Your task to perform on an android device: check android version Image 0: 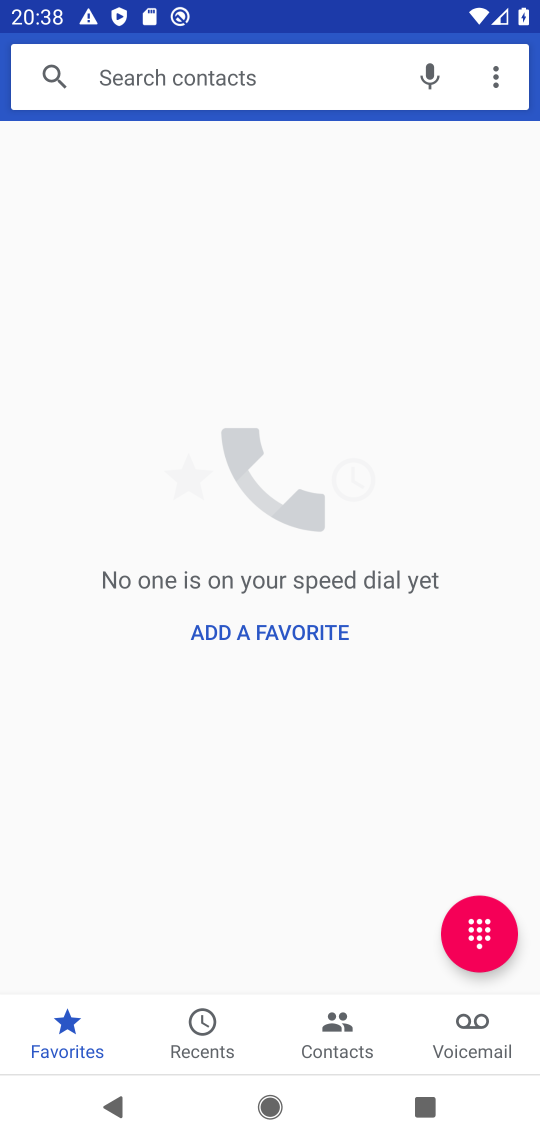
Step 0: press home button
Your task to perform on an android device: check android version Image 1: 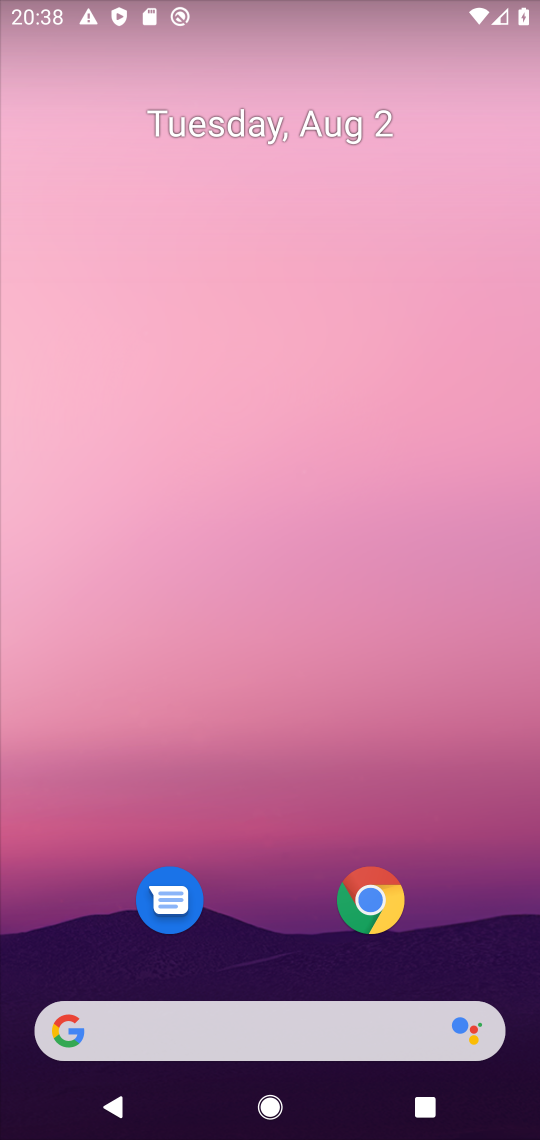
Step 1: drag from (266, 848) to (219, 0)
Your task to perform on an android device: check android version Image 2: 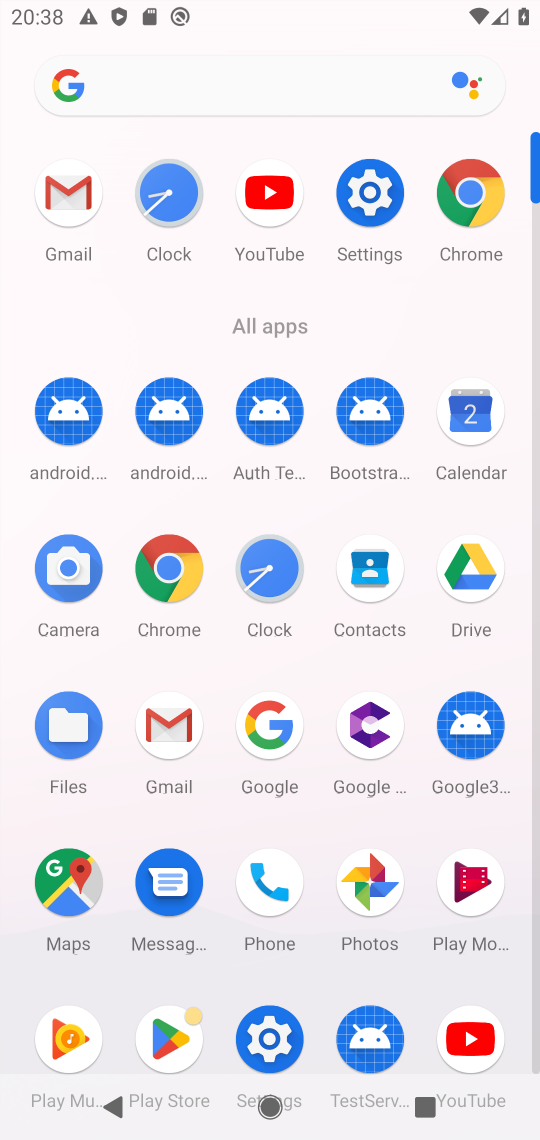
Step 2: click (367, 195)
Your task to perform on an android device: check android version Image 3: 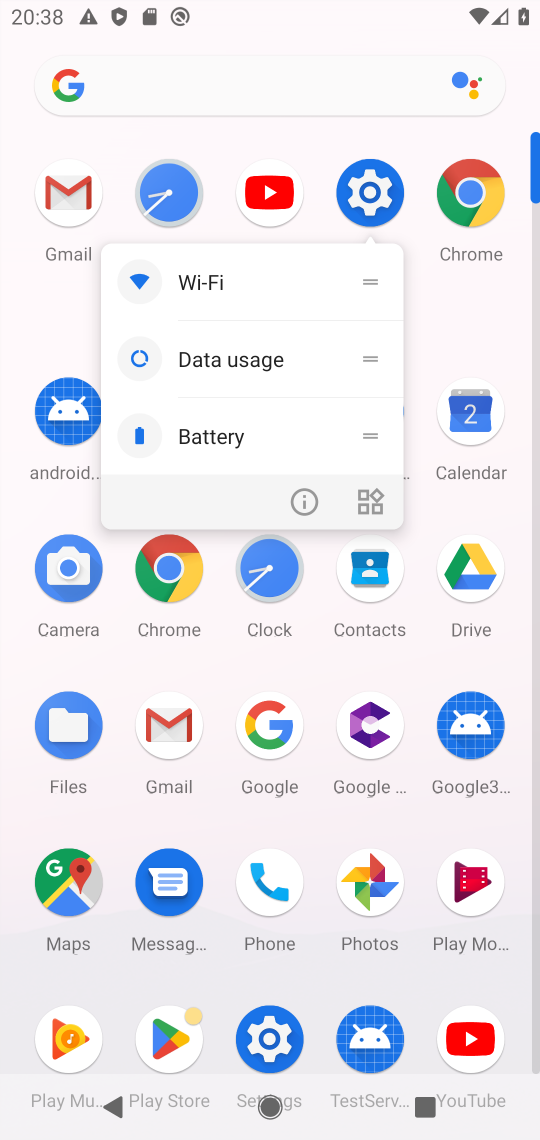
Step 3: click (367, 193)
Your task to perform on an android device: check android version Image 4: 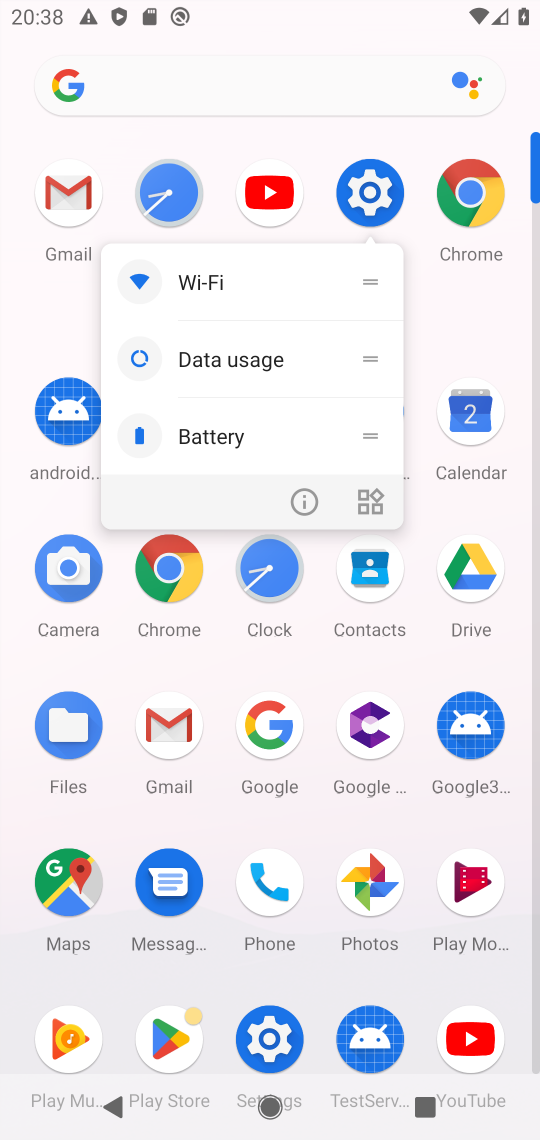
Step 4: click (367, 193)
Your task to perform on an android device: check android version Image 5: 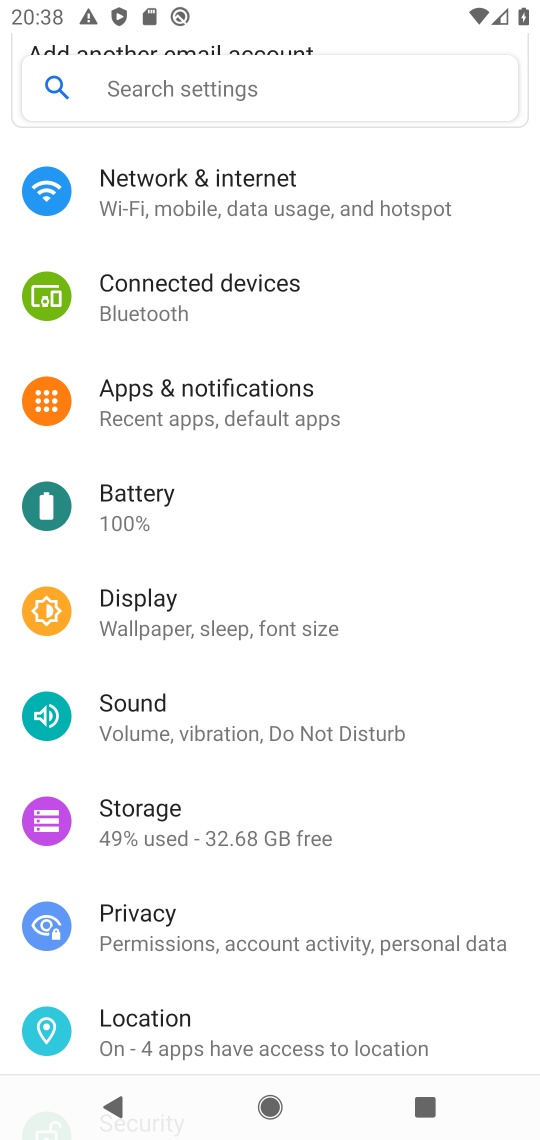
Step 5: drag from (274, 839) to (303, 197)
Your task to perform on an android device: check android version Image 6: 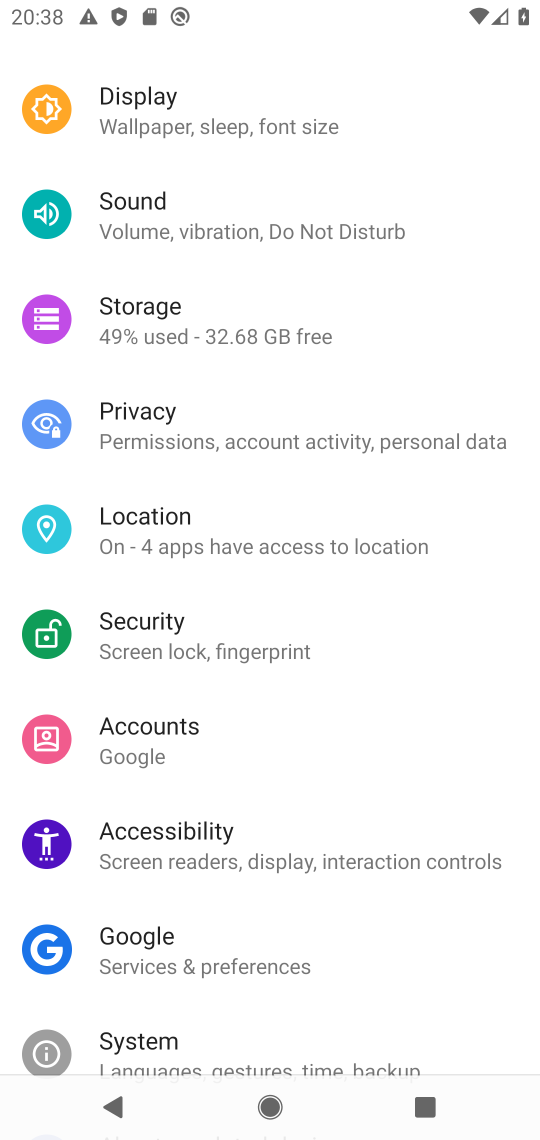
Step 6: drag from (247, 849) to (320, 196)
Your task to perform on an android device: check android version Image 7: 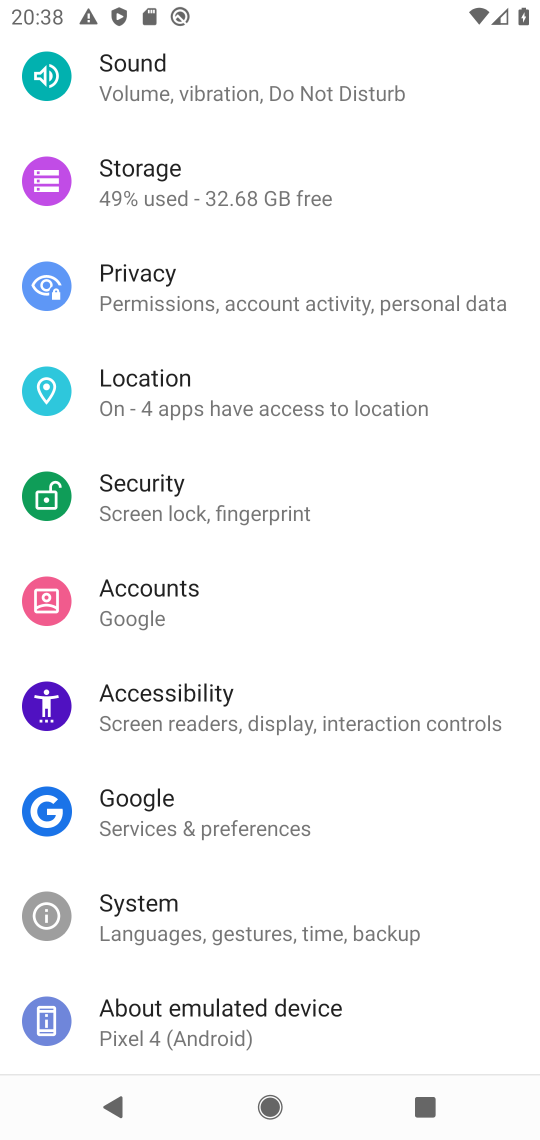
Step 7: click (231, 1023)
Your task to perform on an android device: check android version Image 8: 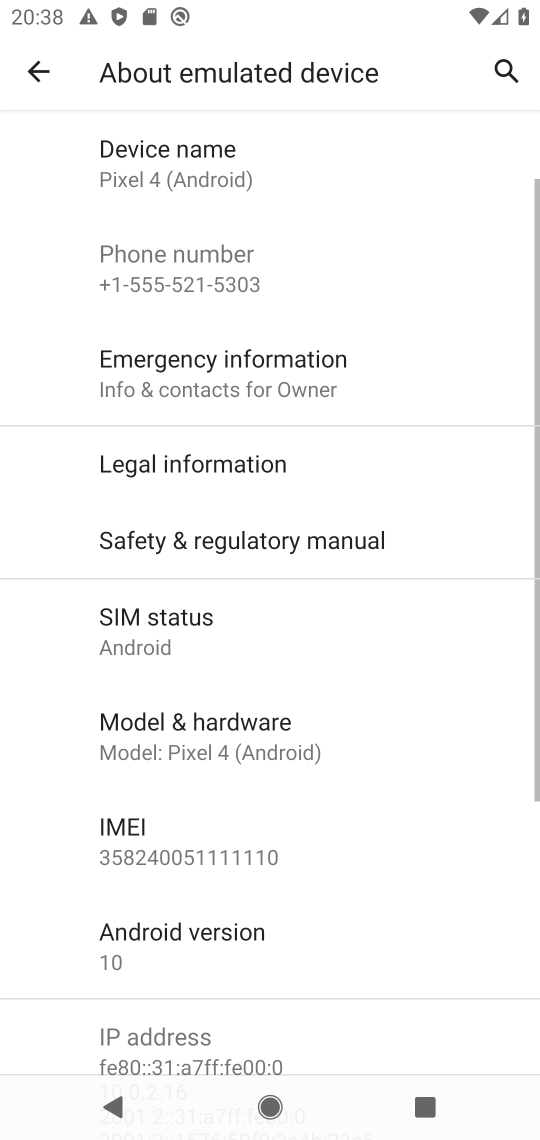
Step 8: click (236, 957)
Your task to perform on an android device: check android version Image 9: 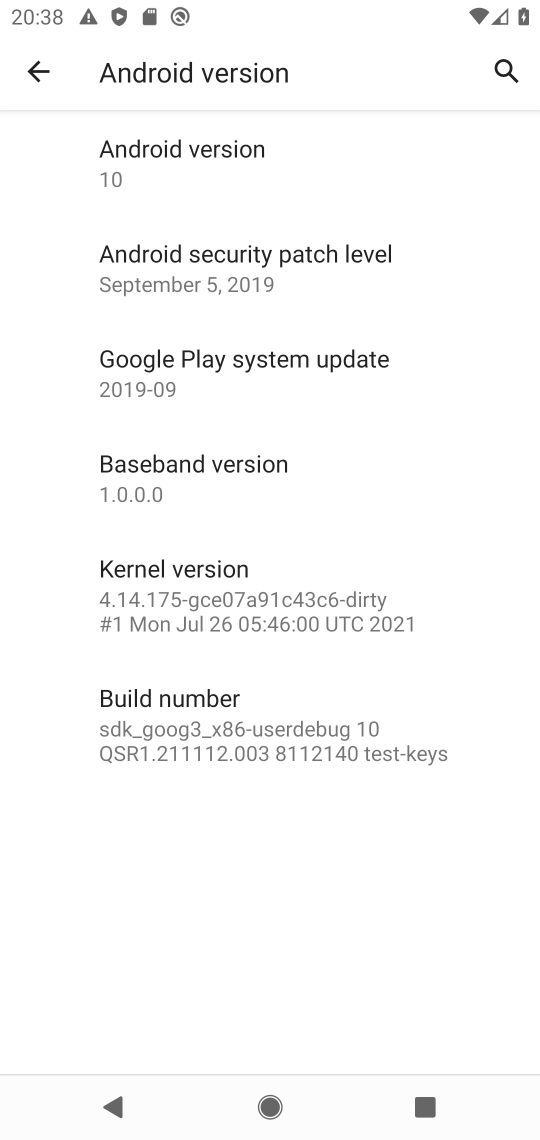
Step 9: task complete